Your task to perform on an android device: change notification settings in the gmail app Image 0: 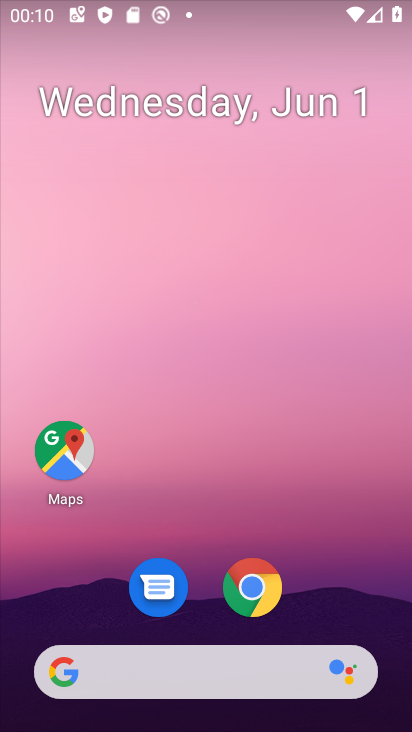
Step 0: drag from (341, 620) to (277, 78)
Your task to perform on an android device: change notification settings in the gmail app Image 1: 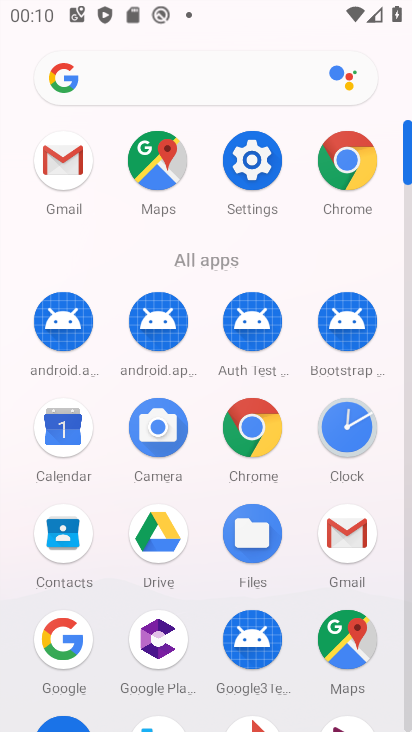
Step 1: click (354, 528)
Your task to perform on an android device: change notification settings in the gmail app Image 2: 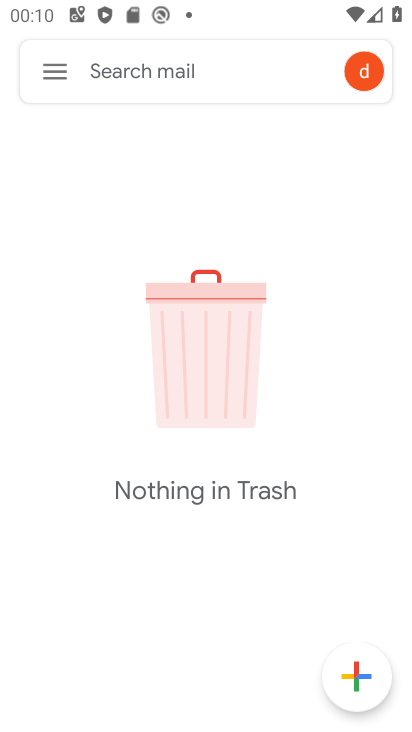
Step 2: click (58, 59)
Your task to perform on an android device: change notification settings in the gmail app Image 3: 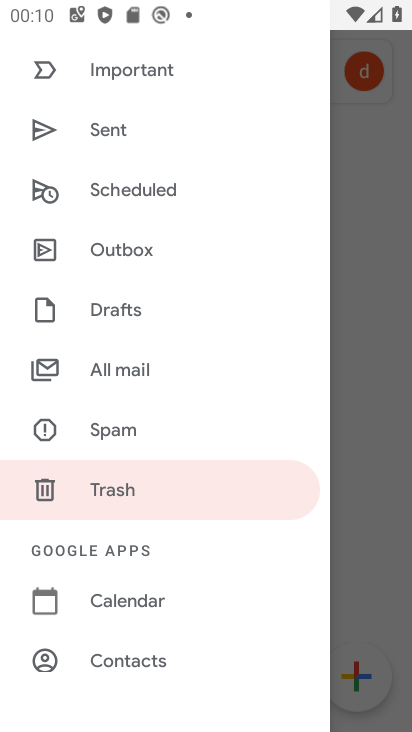
Step 3: drag from (112, 658) to (106, 195)
Your task to perform on an android device: change notification settings in the gmail app Image 4: 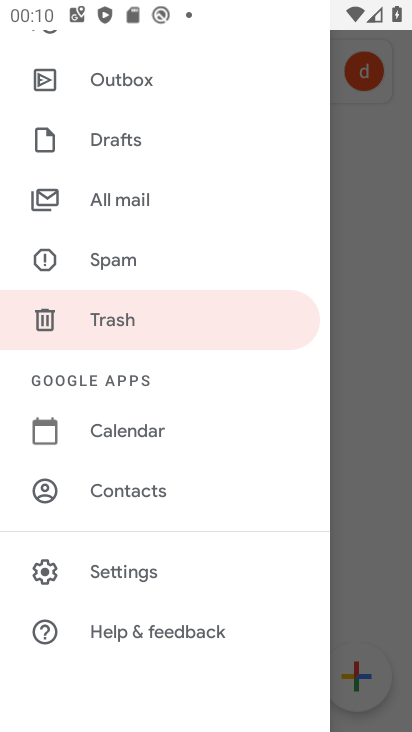
Step 4: click (124, 574)
Your task to perform on an android device: change notification settings in the gmail app Image 5: 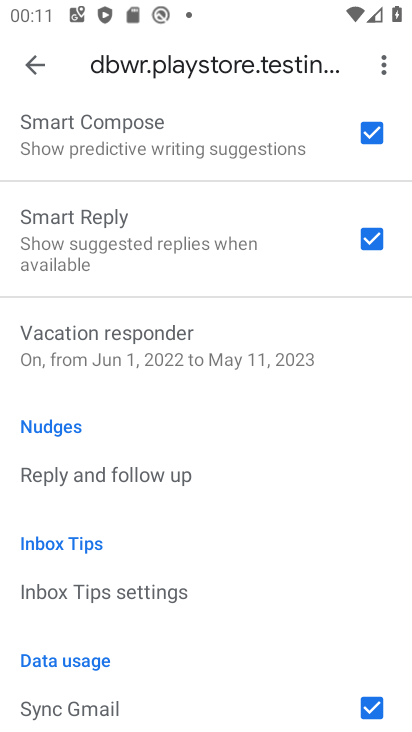
Step 5: drag from (174, 338) to (97, 712)
Your task to perform on an android device: change notification settings in the gmail app Image 6: 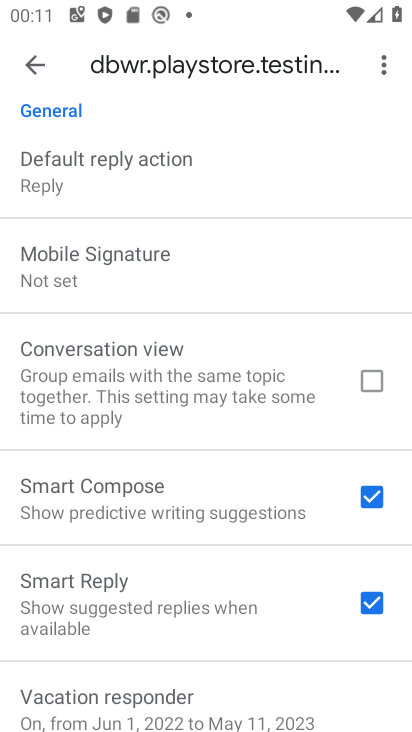
Step 6: drag from (117, 269) to (120, 602)
Your task to perform on an android device: change notification settings in the gmail app Image 7: 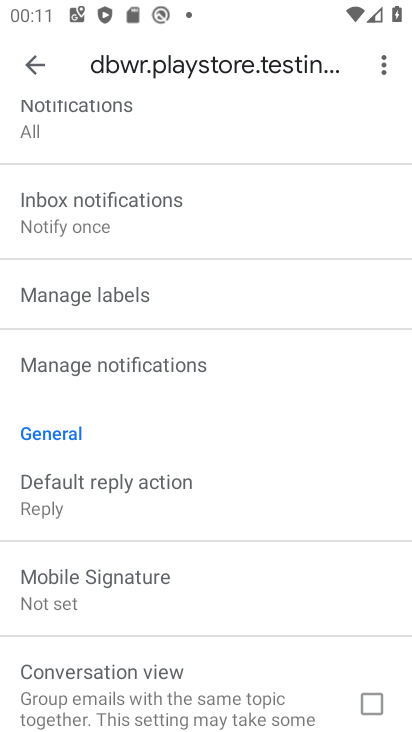
Step 7: click (127, 370)
Your task to perform on an android device: change notification settings in the gmail app Image 8: 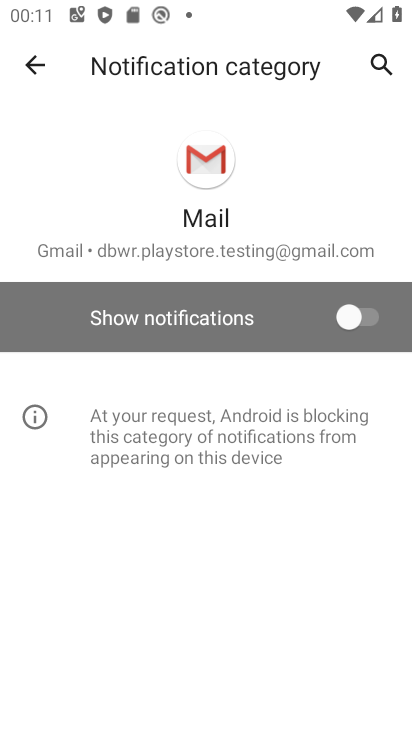
Step 8: click (367, 309)
Your task to perform on an android device: change notification settings in the gmail app Image 9: 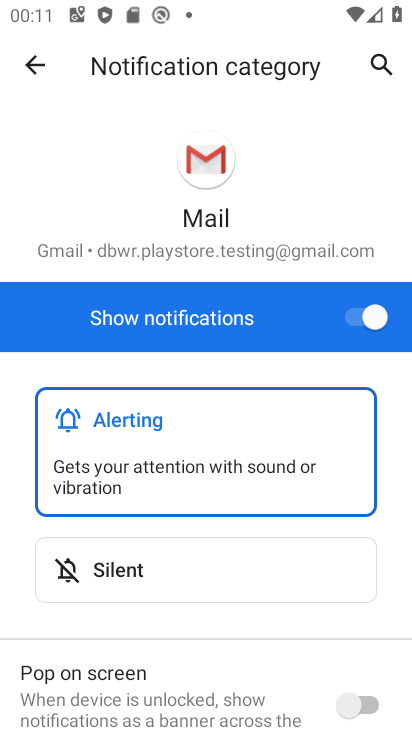
Step 9: task complete